Your task to perform on an android device: Go to wifi settings Image 0: 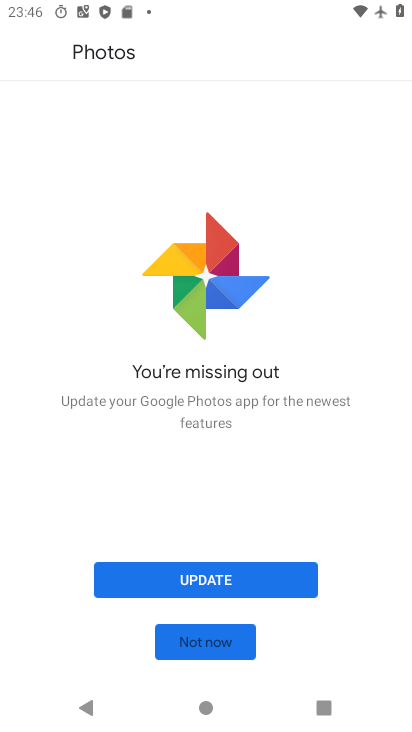
Step 0: press home button
Your task to perform on an android device: Go to wifi settings Image 1: 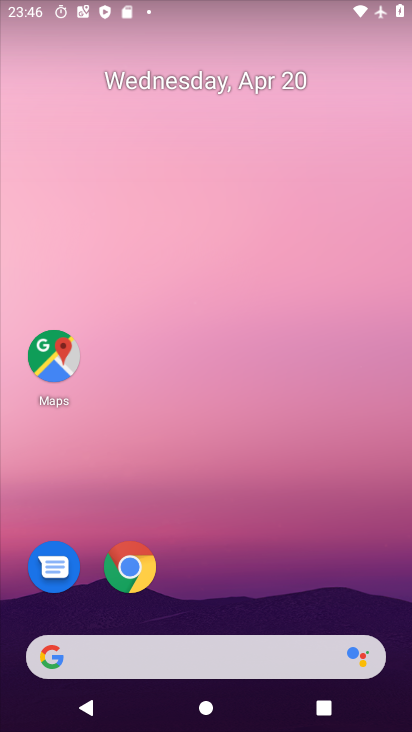
Step 1: drag from (222, 494) to (294, 237)
Your task to perform on an android device: Go to wifi settings Image 2: 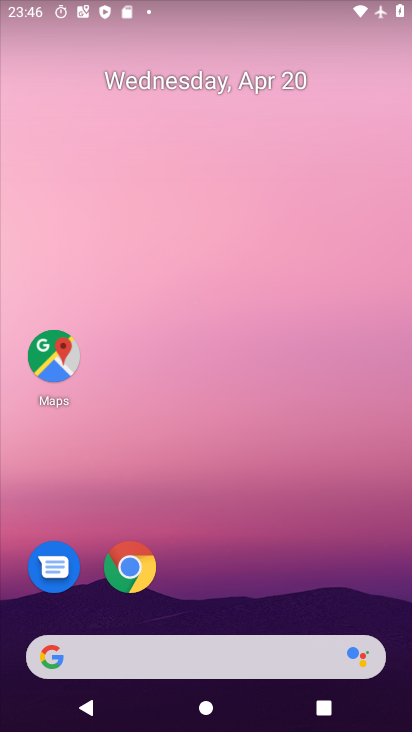
Step 2: drag from (269, 449) to (305, 240)
Your task to perform on an android device: Go to wifi settings Image 3: 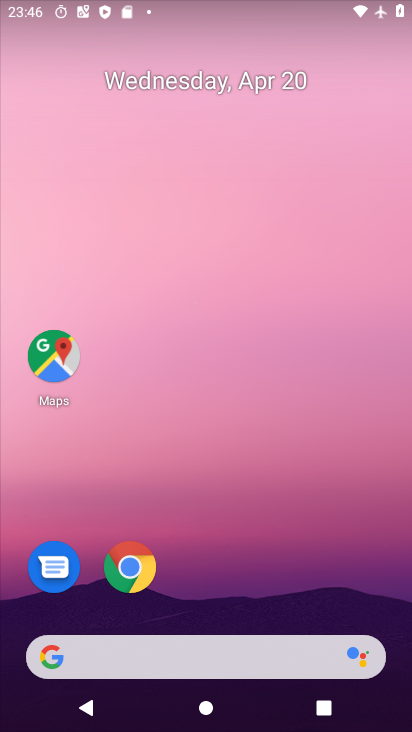
Step 3: click (205, 603)
Your task to perform on an android device: Go to wifi settings Image 4: 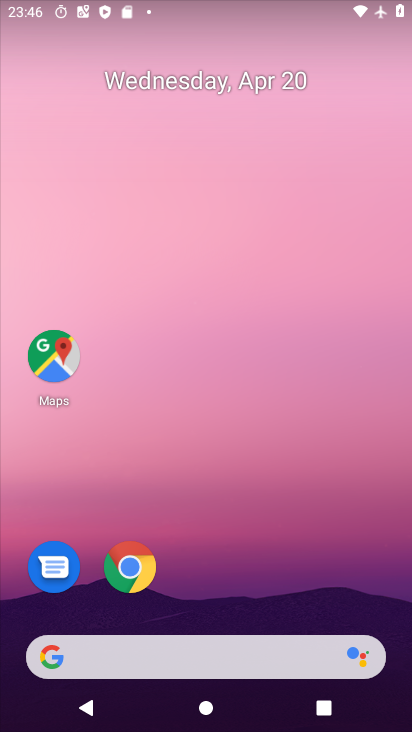
Step 4: drag from (235, 595) to (243, 288)
Your task to perform on an android device: Go to wifi settings Image 5: 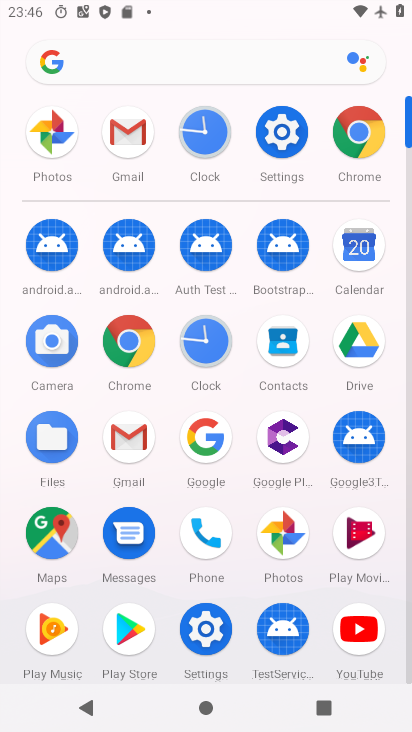
Step 5: click (281, 132)
Your task to perform on an android device: Go to wifi settings Image 6: 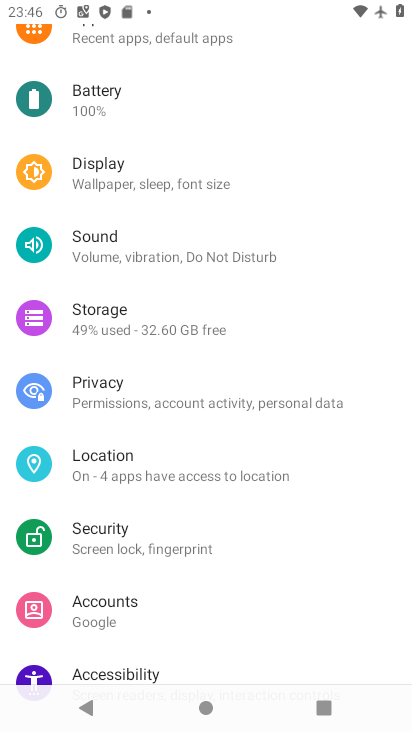
Step 6: drag from (261, 155) to (170, 654)
Your task to perform on an android device: Go to wifi settings Image 7: 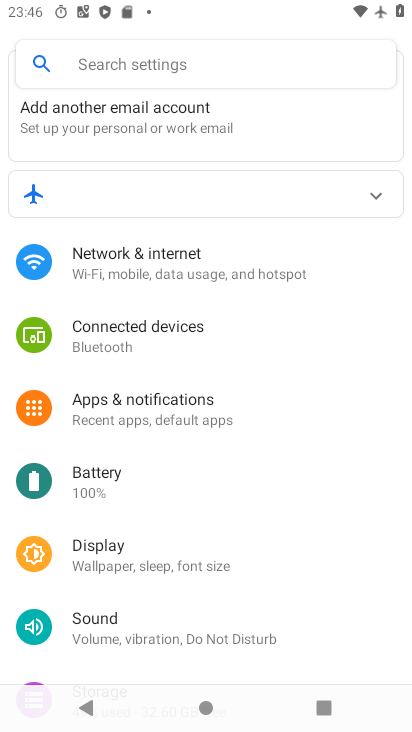
Step 7: click (176, 249)
Your task to perform on an android device: Go to wifi settings Image 8: 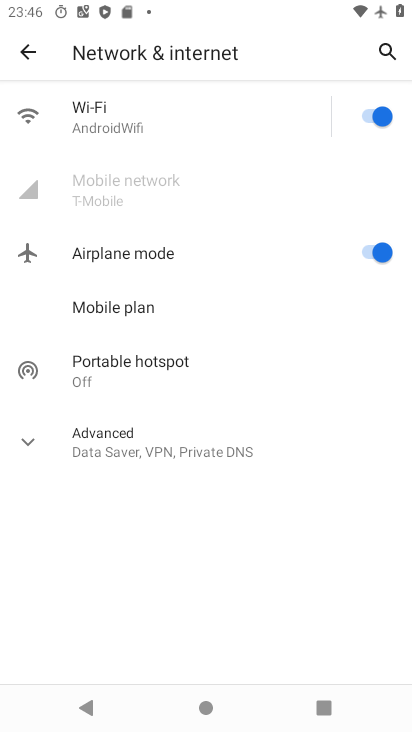
Step 8: click (190, 131)
Your task to perform on an android device: Go to wifi settings Image 9: 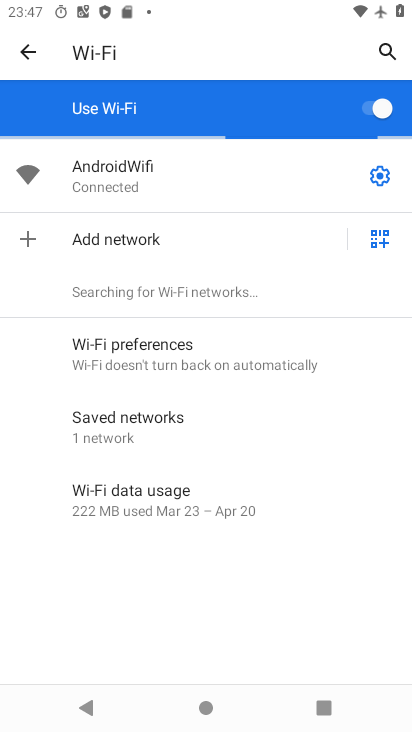
Step 9: task complete